Your task to perform on an android device: turn on wifi Image 0: 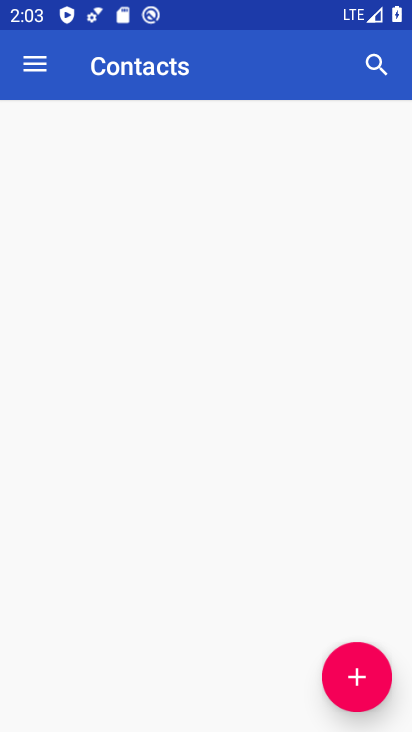
Step 0: press back button
Your task to perform on an android device: turn on wifi Image 1: 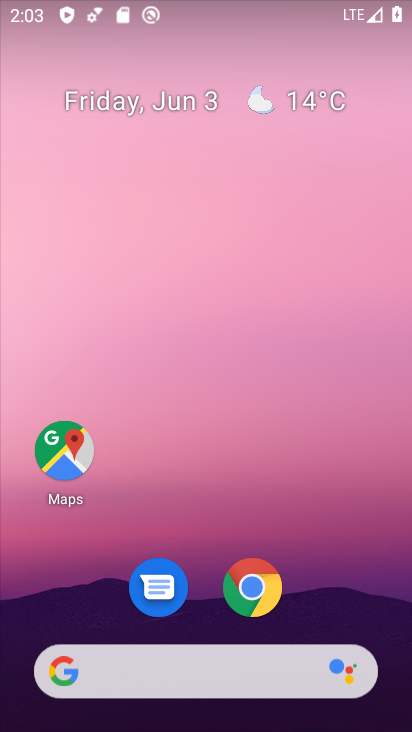
Step 1: drag from (72, 11) to (107, 502)
Your task to perform on an android device: turn on wifi Image 2: 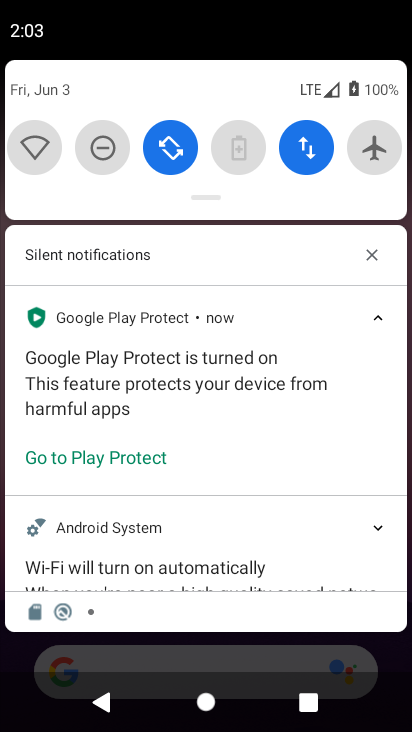
Step 2: click (30, 136)
Your task to perform on an android device: turn on wifi Image 3: 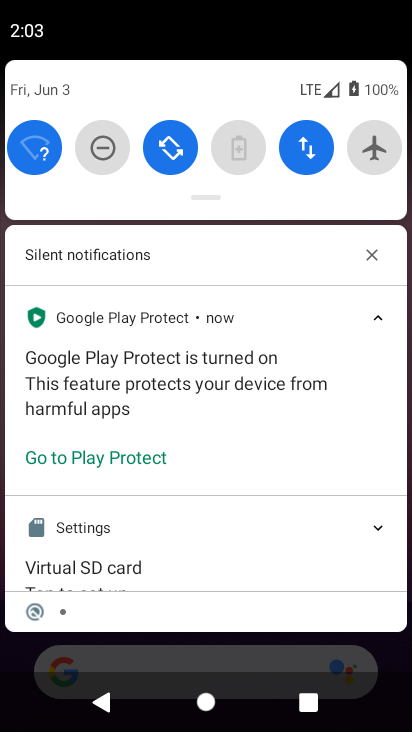
Step 3: task complete